Your task to perform on an android device: open app "ColorNote Notepad Notes" Image 0: 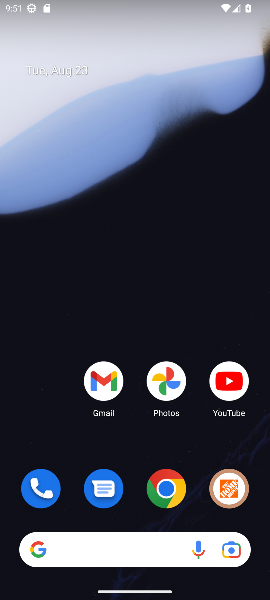
Step 0: click (140, 174)
Your task to perform on an android device: open app "ColorNote Notepad Notes" Image 1: 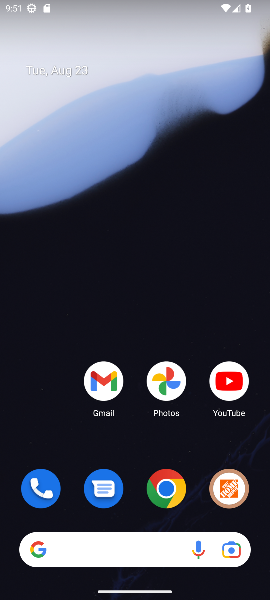
Step 1: click (127, 194)
Your task to perform on an android device: open app "ColorNote Notepad Notes" Image 2: 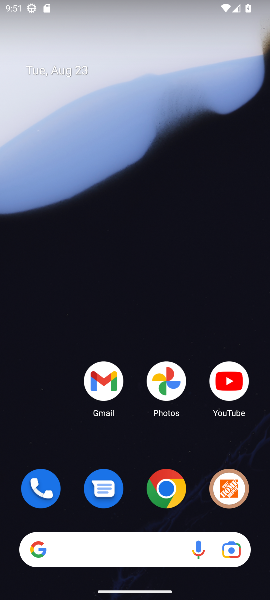
Step 2: drag from (133, 511) to (217, 17)
Your task to perform on an android device: open app "ColorNote Notepad Notes" Image 3: 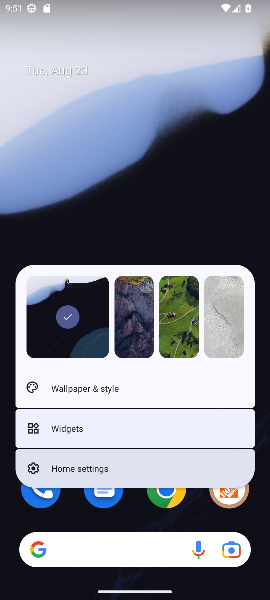
Step 3: click (124, 502)
Your task to perform on an android device: open app "ColorNote Notepad Notes" Image 4: 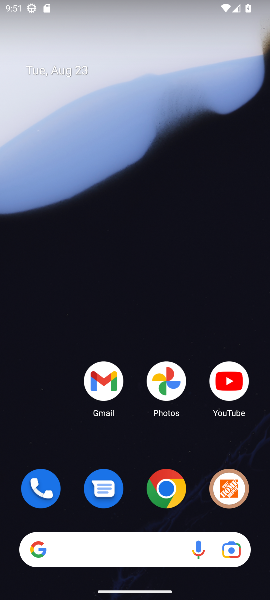
Step 4: click (145, 143)
Your task to perform on an android device: open app "ColorNote Notepad Notes" Image 5: 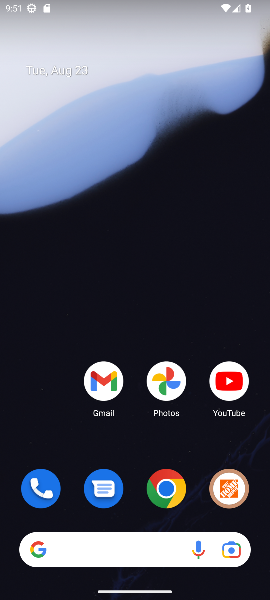
Step 5: drag from (127, 426) to (151, 220)
Your task to perform on an android device: open app "ColorNote Notepad Notes" Image 6: 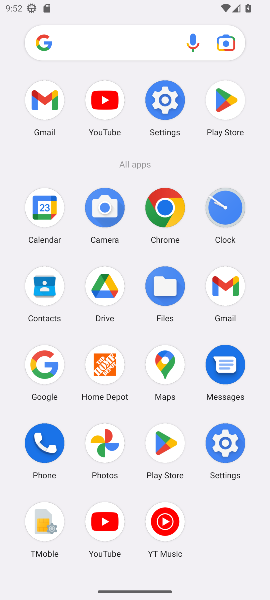
Step 6: click (228, 109)
Your task to perform on an android device: open app "ColorNote Notepad Notes" Image 7: 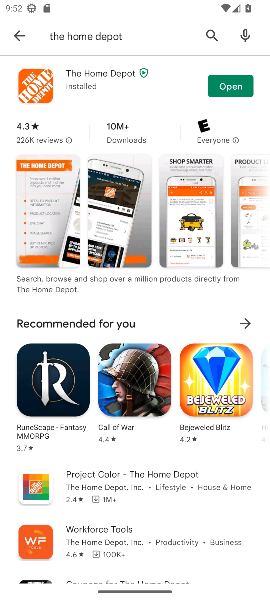
Step 7: click (10, 40)
Your task to perform on an android device: open app "ColorNote Notepad Notes" Image 8: 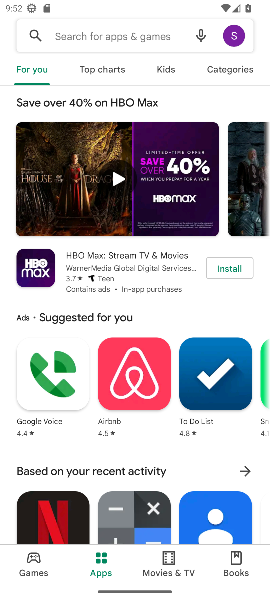
Step 8: click (104, 40)
Your task to perform on an android device: open app "ColorNote Notepad Notes" Image 9: 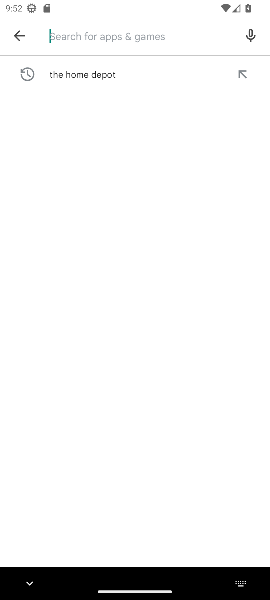
Step 9: type "ColorNote Notepad Notes"
Your task to perform on an android device: open app "ColorNote Notepad Notes" Image 10: 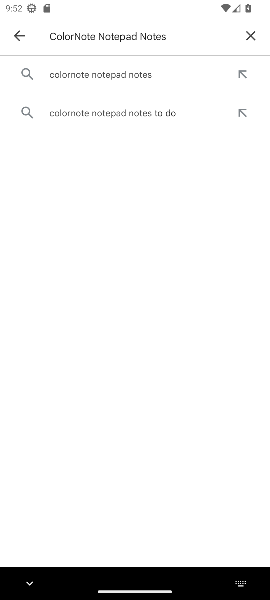
Step 10: click (130, 68)
Your task to perform on an android device: open app "ColorNote Notepad Notes" Image 11: 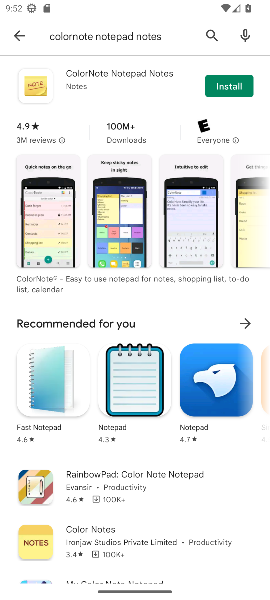
Step 11: click (232, 93)
Your task to perform on an android device: open app "ColorNote Notepad Notes" Image 12: 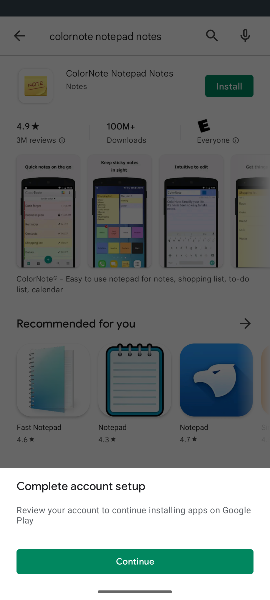
Step 12: click (126, 562)
Your task to perform on an android device: open app "ColorNote Notepad Notes" Image 13: 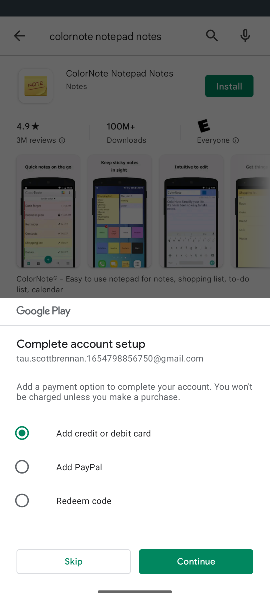
Step 13: click (53, 555)
Your task to perform on an android device: open app "ColorNote Notepad Notes" Image 14: 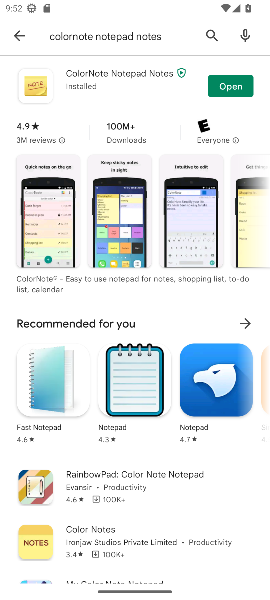
Step 14: click (217, 90)
Your task to perform on an android device: open app "ColorNote Notepad Notes" Image 15: 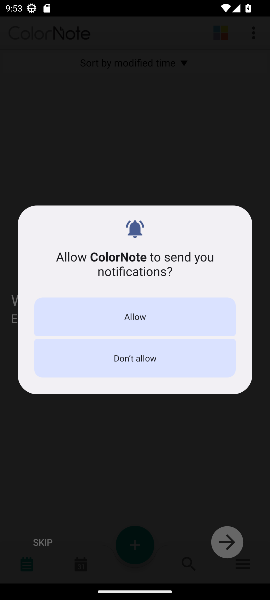
Step 15: task complete